Your task to perform on an android device: turn pop-ups off in chrome Image 0: 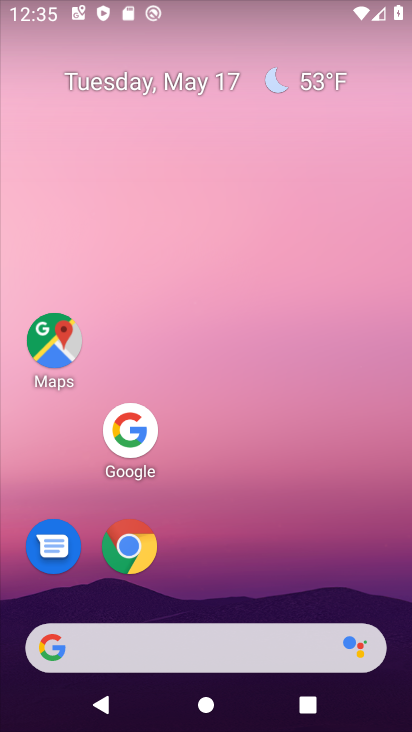
Step 0: click (131, 548)
Your task to perform on an android device: turn pop-ups off in chrome Image 1: 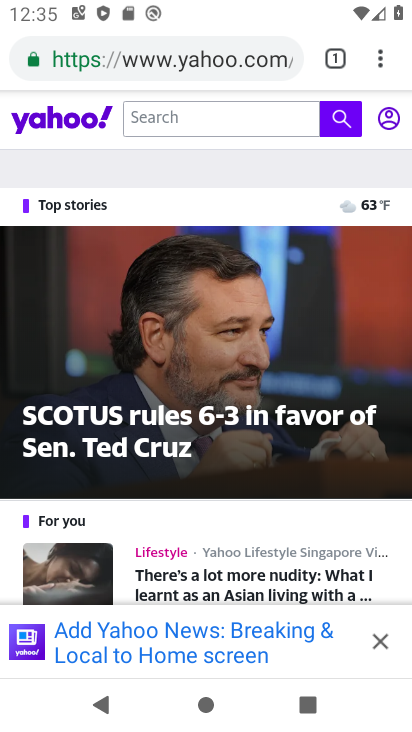
Step 1: click (370, 62)
Your task to perform on an android device: turn pop-ups off in chrome Image 2: 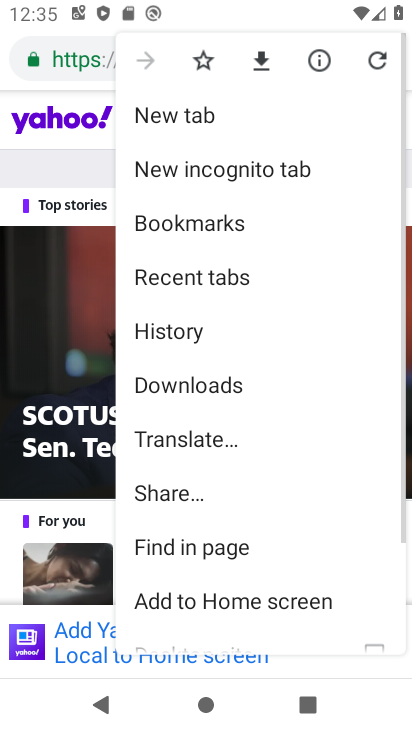
Step 2: drag from (256, 515) to (246, 151)
Your task to perform on an android device: turn pop-ups off in chrome Image 3: 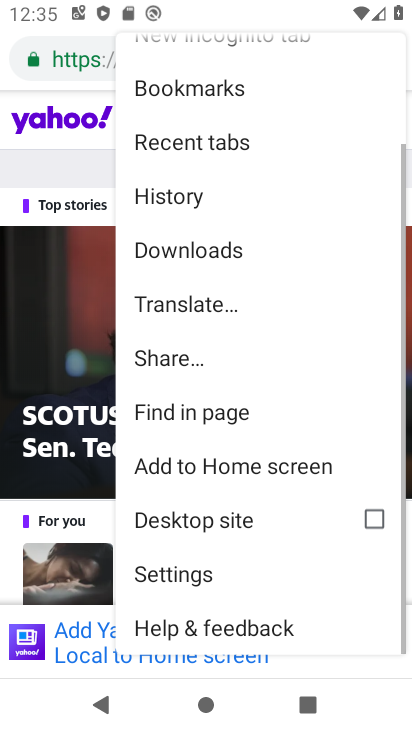
Step 3: click (204, 577)
Your task to perform on an android device: turn pop-ups off in chrome Image 4: 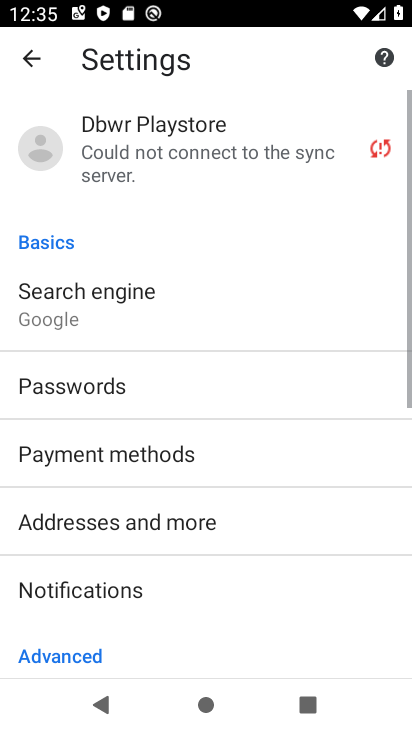
Step 4: drag from (177, 539) to (153, 126)
Your task to perform on an android device: turn pop-ups off in chrome Image 5: 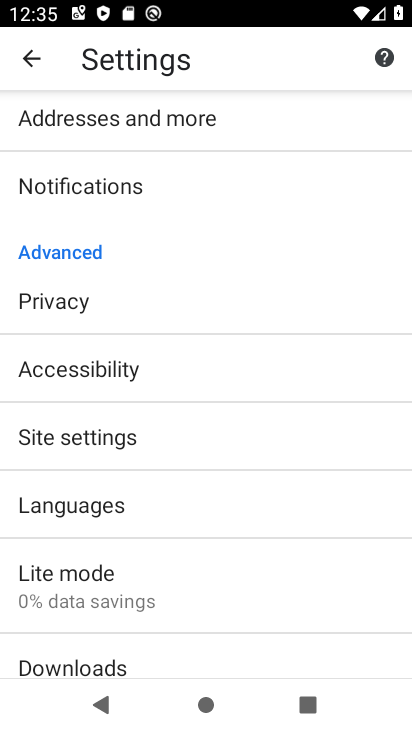
Step 5: drag from (154, 574) to (158, 337)
Your task to perform on an android device: turn pop-ups off in chrome Image 6: 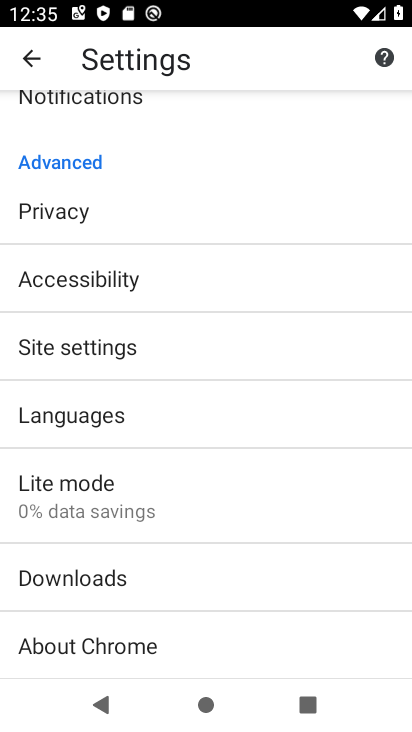
Step 6: click (84, 339)
Your task to perform on an android device: turn pop-ups off in chrome Image 7: 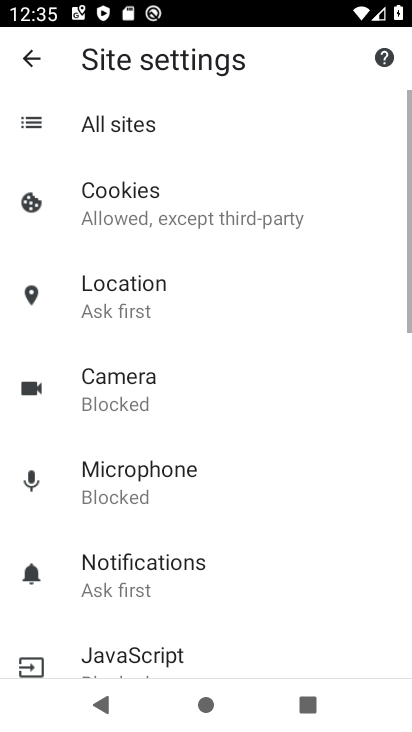
Step 7: drag from (244, 577) to (235, 135)
Your task to perform on an android device: turn pop-ups off in chrome Image 8: 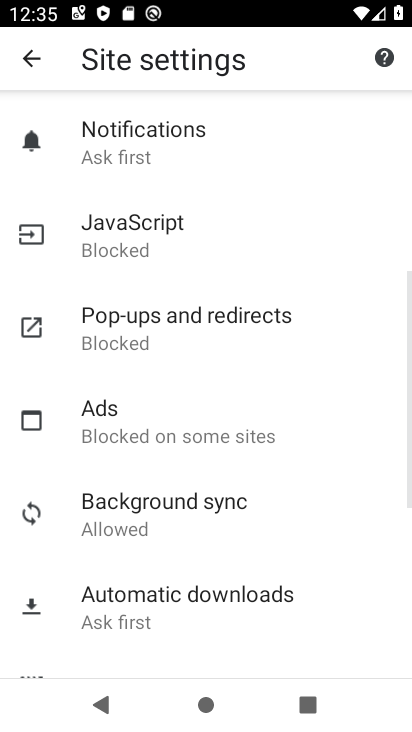
Step 8: click (168, 326)
Your task to perform on an android device: turn pop-ups off in chrome Image 9: 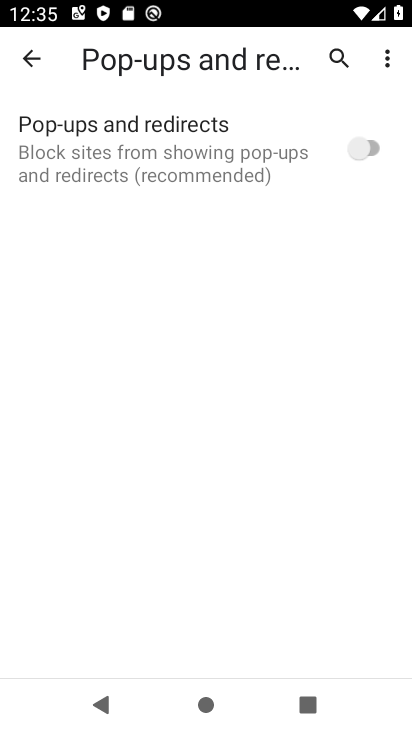
Step 9: task complete